Your task to perform on an android device: Set the phone to "Do not disturb". Image 0: 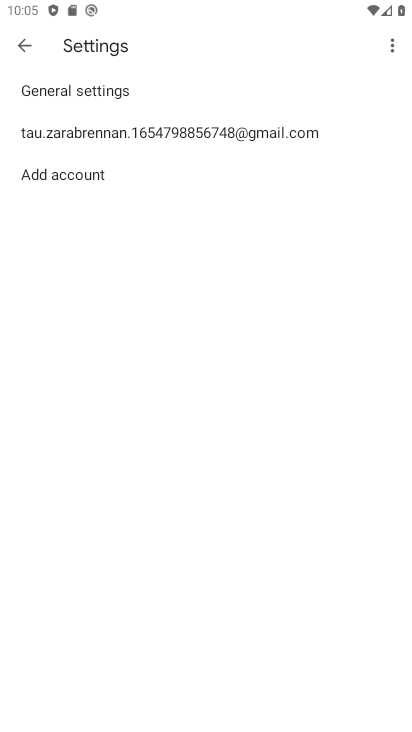
Step 0: press home button
Your task to perform on an android device: Set the phone to "Do not disturb". Image 1: 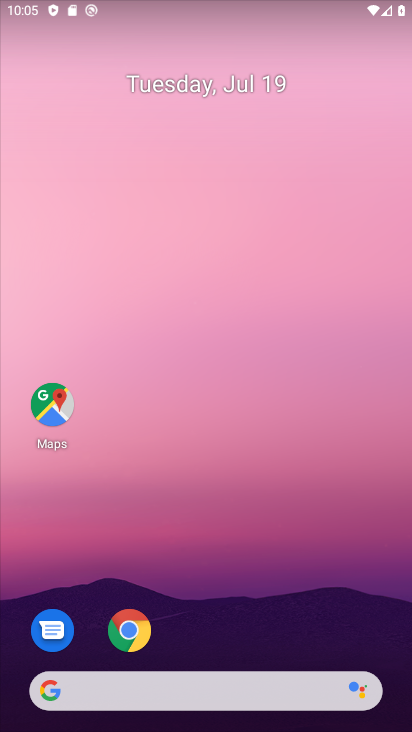
Step 1: drag from (29, 688) to (253, 153)
Your task to perform on an android device: Set the phone to "Do not disturb". Image 2: 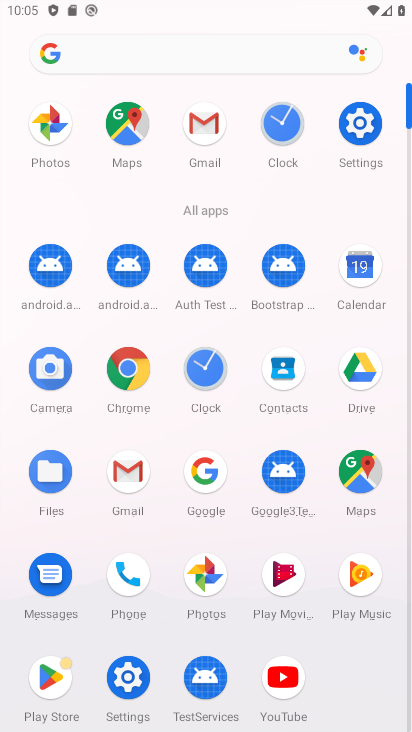
Step 2: click (129, 680)
Your task to perform on an android device: Set the phone to "Do not disturb". Image 3: 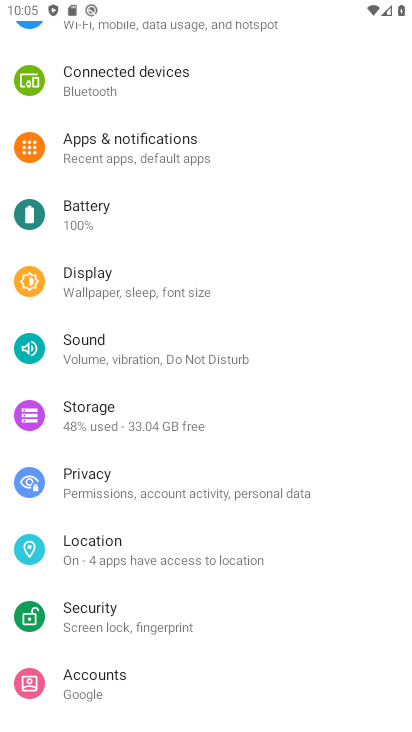
Step 3: click (174, 358)
Your task to perform on an android device: Set the phone to "Do not disturb". Image 4: 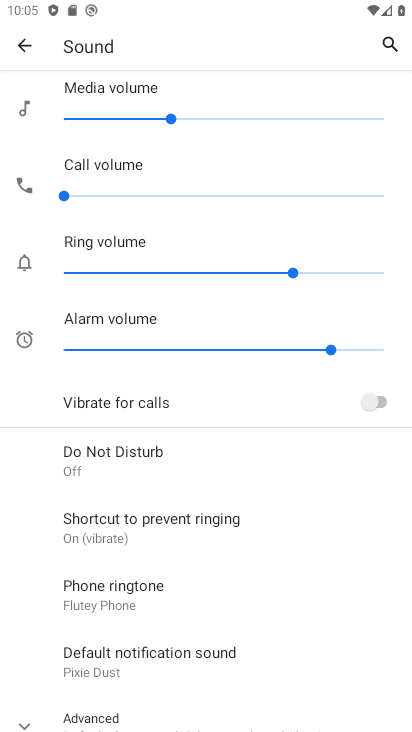
Step 4: click (153, 466)
Your task to perform on an android device: Set the phone to "Do not disturb". Image 5: 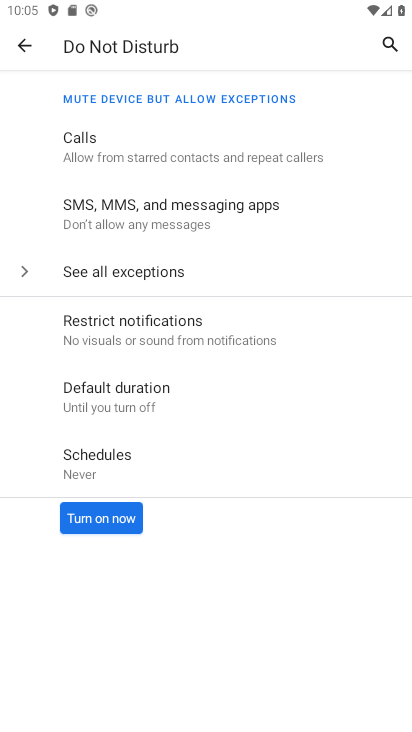
Step 5: click (92, 517)
Your task to perform on an android device: Set the phone to "Do not disturb". Image 6: 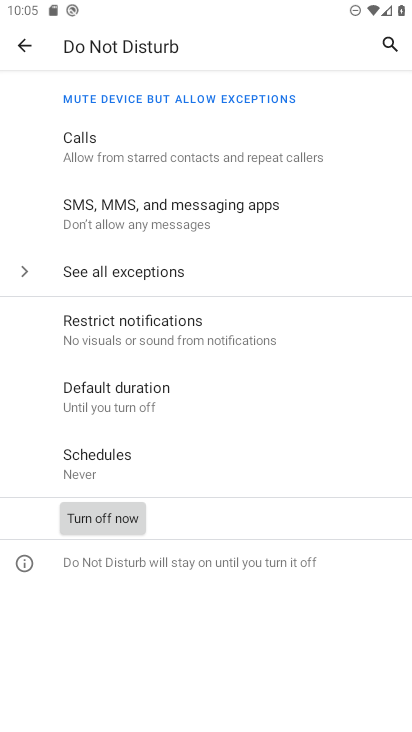
Step 6: task complete